Your task to perform on an android device: Search for pizza restaurants on Maps Image 0: 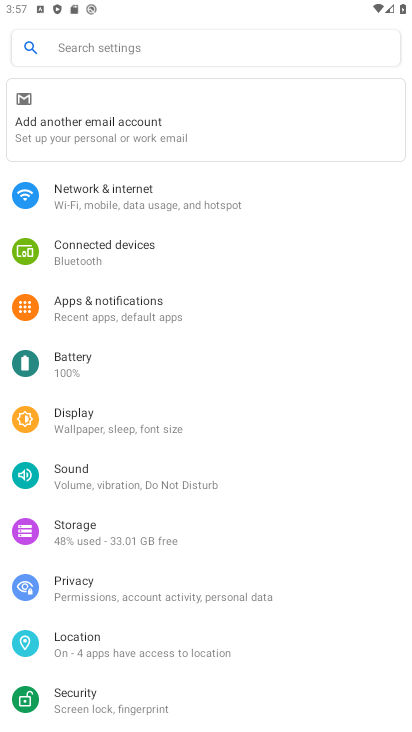
Step 0: press home button
Your task to perform on an android device: Search for pizza restaurants on Maps Image 1: 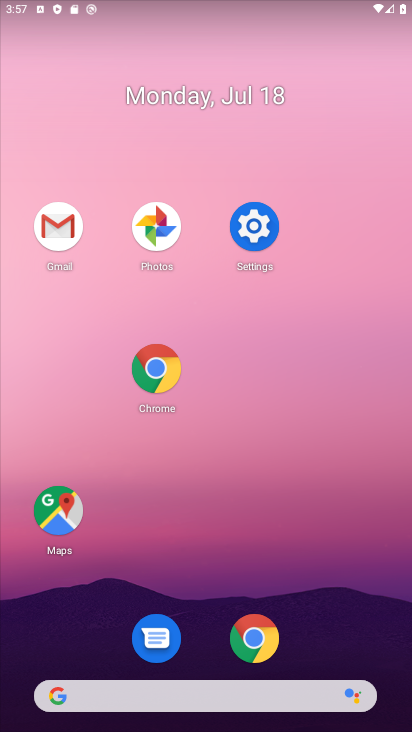
Step 1: click (39, 509)
Your task to perform on an android device: Search for pizza restaurants on Maps Image 2: 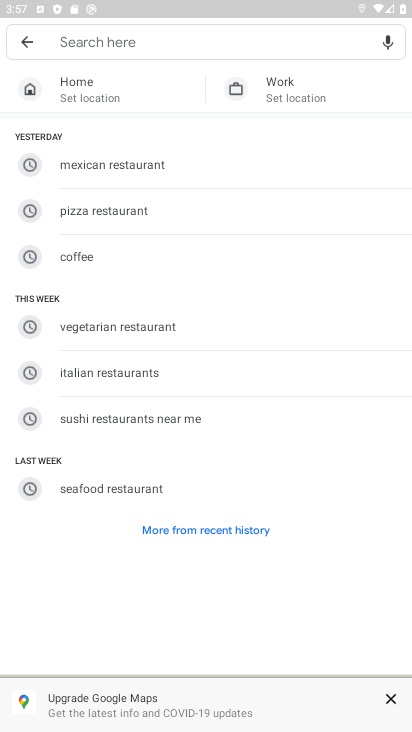
Step 2: click (222, 43)
Your task to perform on an android device: Search for pizza restaurants on Maps Image 3: 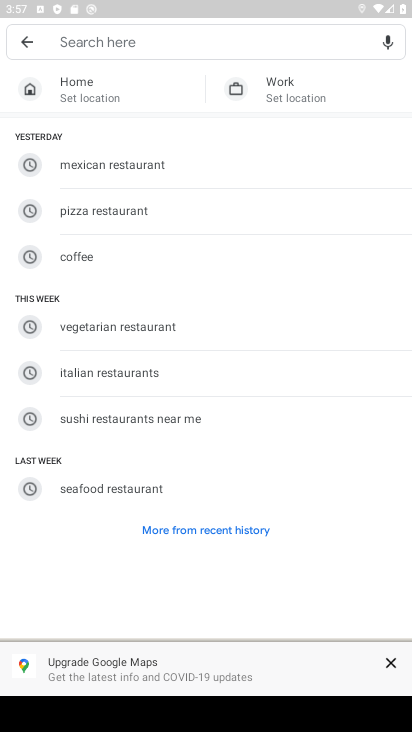
Step 3: click (132, 215)
Your task to perform on an android device: Search for pizza restaurants on Maps Image 4: 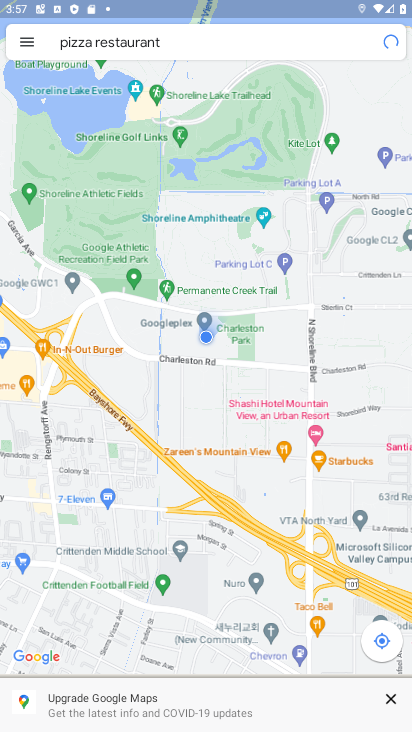
Step 4: task complete